Your task to perform on an android device: Open Maps and search for coffee Image 0: 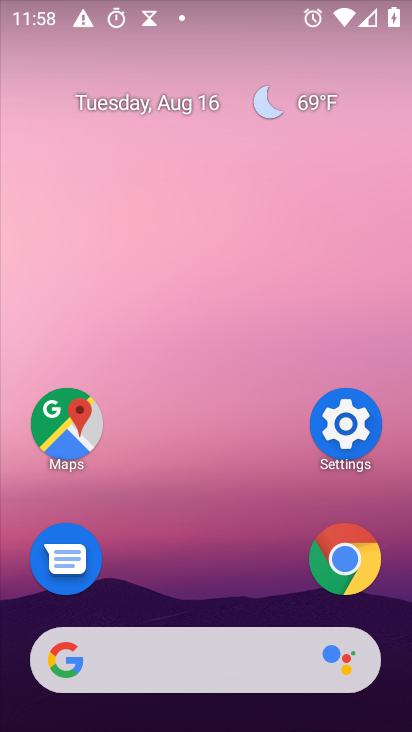
Step 0: click (64, 434)
Your task to perform on an android device: Open Maps and search for coffee Image 1: 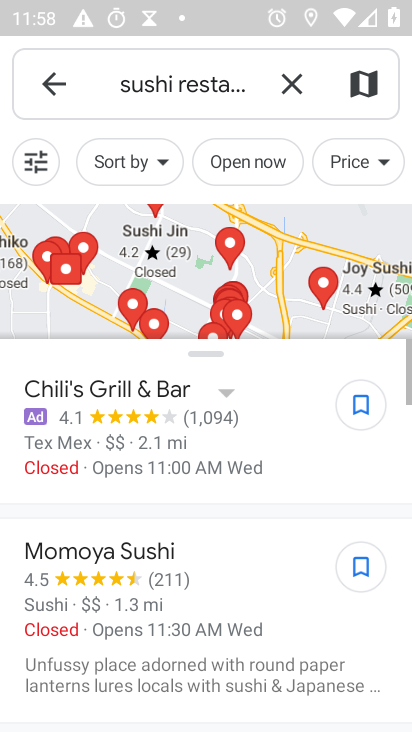
Step 1: click (290, 78)
Your task to perform on an android device: Open Maps and search for coffee Image 2: 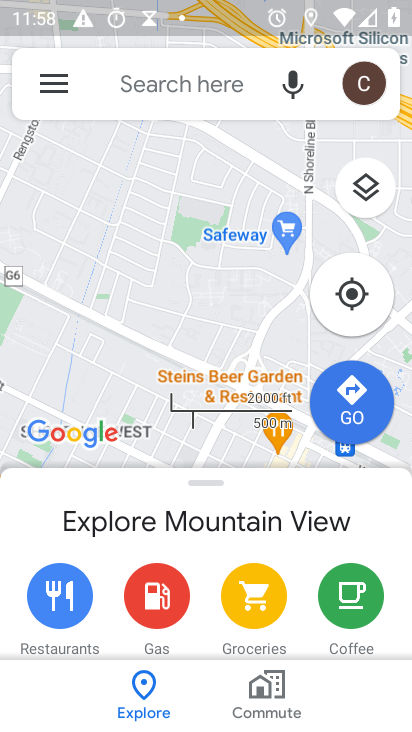
Step 2: click (143, 76)
Your task to perform on an android device: Open Maps and search for coffee Image 3: 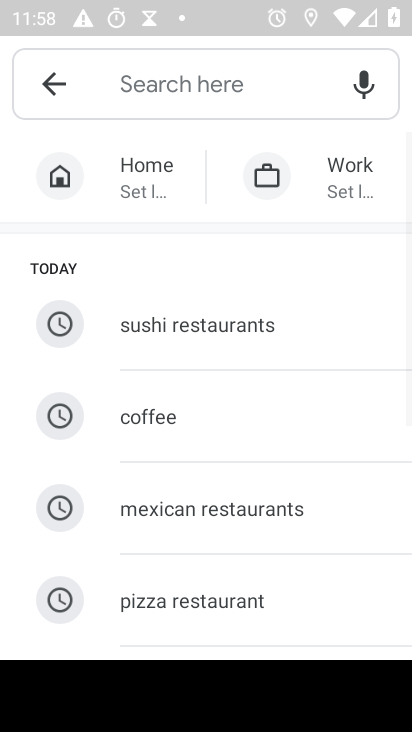
Step 3: click (143, 414)
Your task to perform on an android device: Open Maps and search for coffee Image 4: 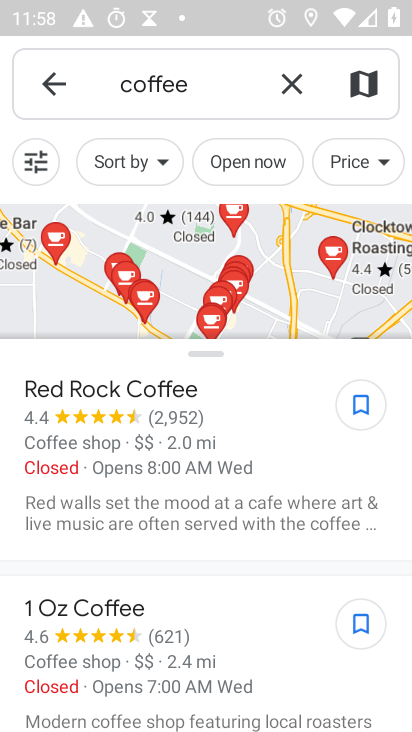
Step 4: task complete